Your task to perform on an android device: Go to ESPN.com Image 0: 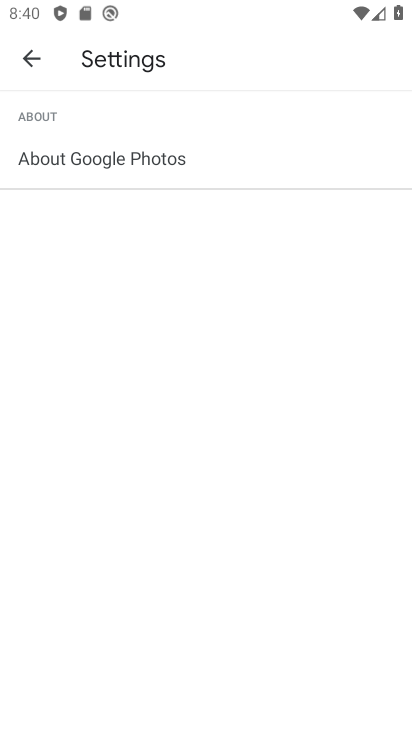
Step 0: press home button
Your task to perform on an android device: Go to ESPN.com Image 1: 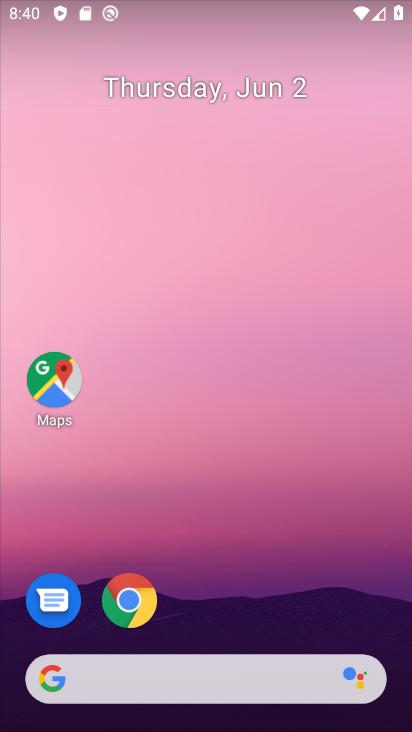
Step 1: click (122, 609)
Your task to perform on an android device: Go to ESPN.com Image 2: 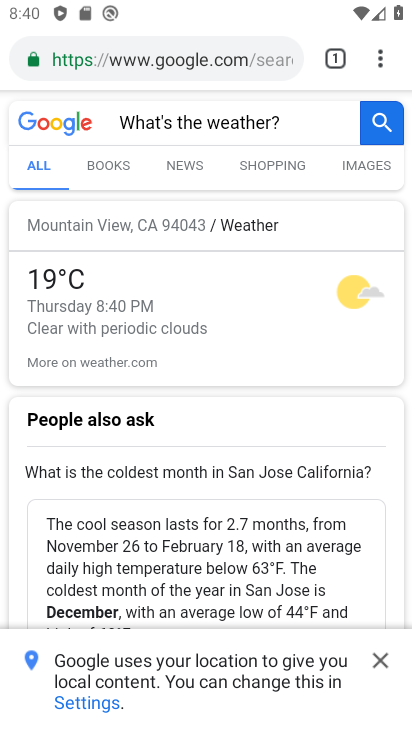
Step 2: drag from (193, 24) to (198, 104)
Your task to perform on an android device: Go to ESPN.com Image 3: 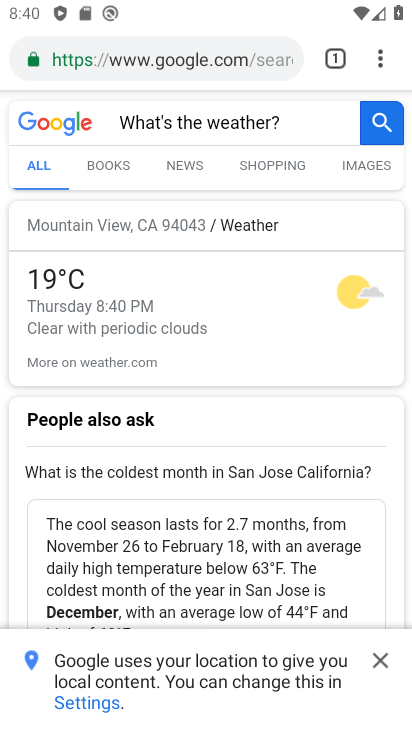
Step 3: drag from (157, 55) to (158, 207)
Your task to perform on an android device: Go to ESPN.com Image 4: 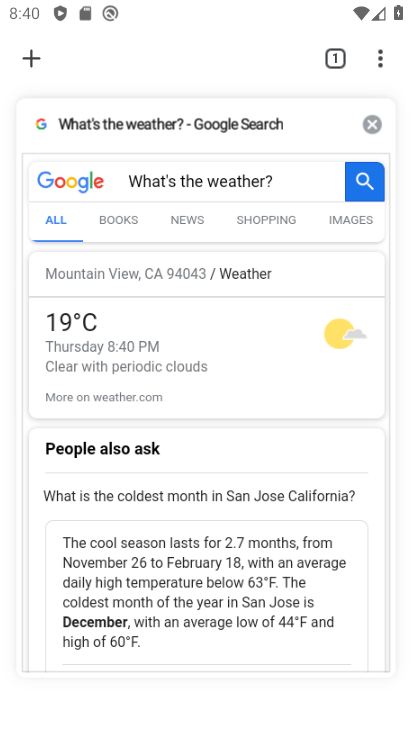
Step 4: click (29, 51)
Your task to perform on an android device: Go to ESPN.com Image 5: 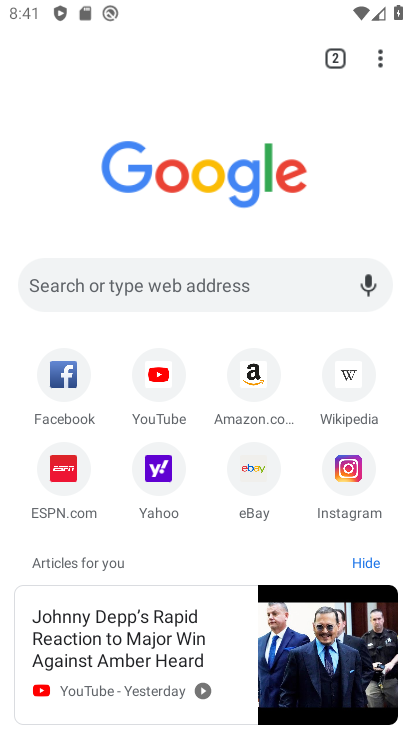
Step 5: click (59, 473)
Your task to perform on an android device: Go to ESPN.com Image 6: 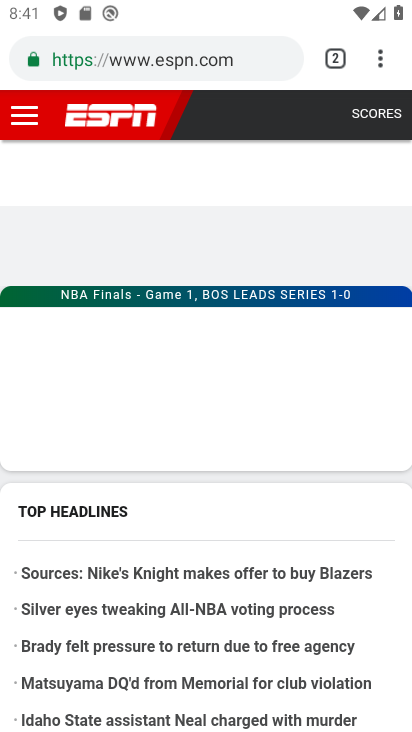
Step 6: task complete